Your task to perform on an android device: Open privacy settings Image 0: 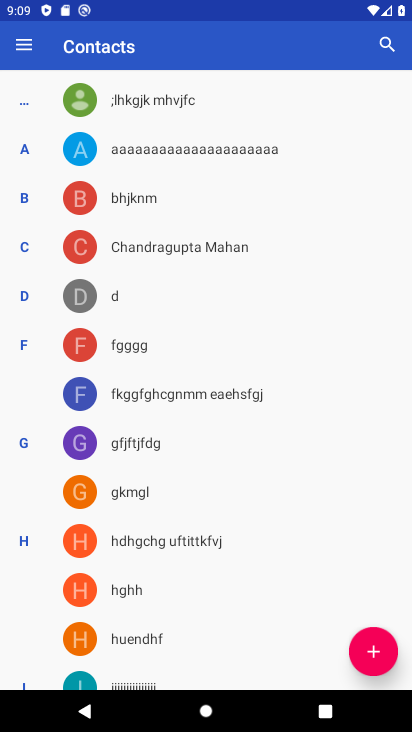
Step 0: press home button
Your task to perform on an android device: Open privacy settings Image 1: 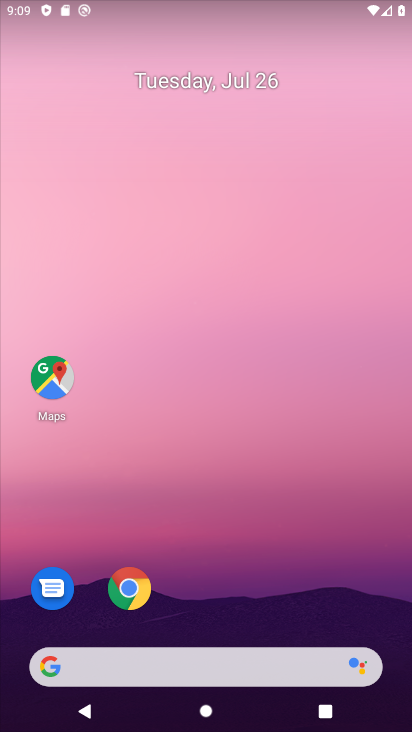
Step 1: drag from (180, 644) to (143, 335)
Your task to perform on an android device: Open privacy settings Image 2: 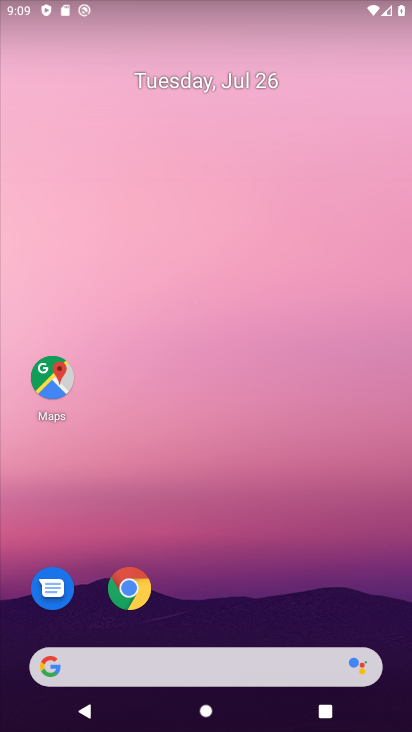
Step 2: drag from (158, 635) to (143, 124)
Your task to perform on an android device: Open privacy settings Image 3: 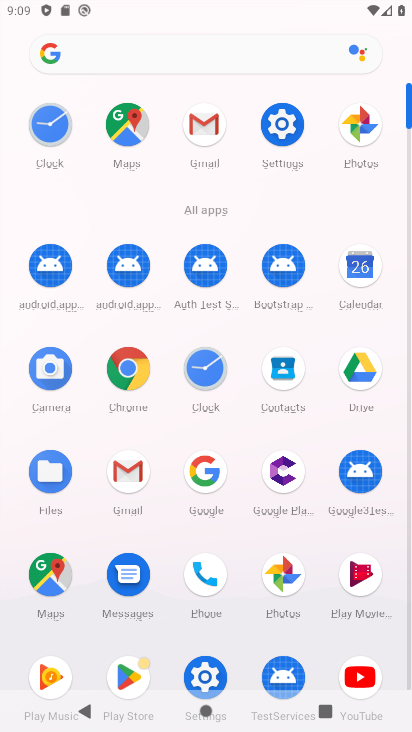
Step 3: click (275, 131)
Your task to perform on an android device: Open privacy settings Image 4: 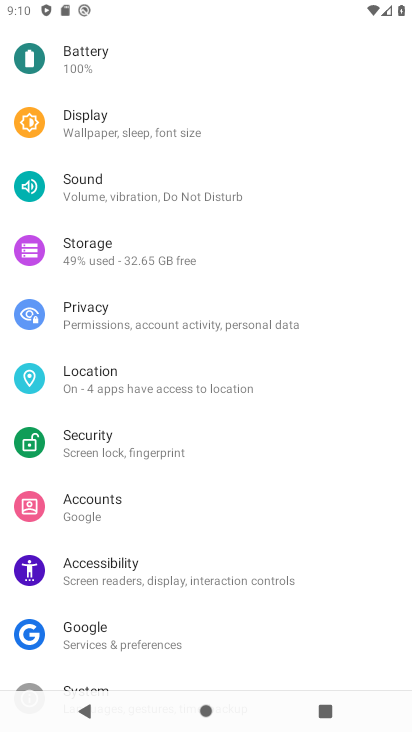
Step 4: click (107, 312)
Your task to perform on an android device: Open privacy settings Image 5: 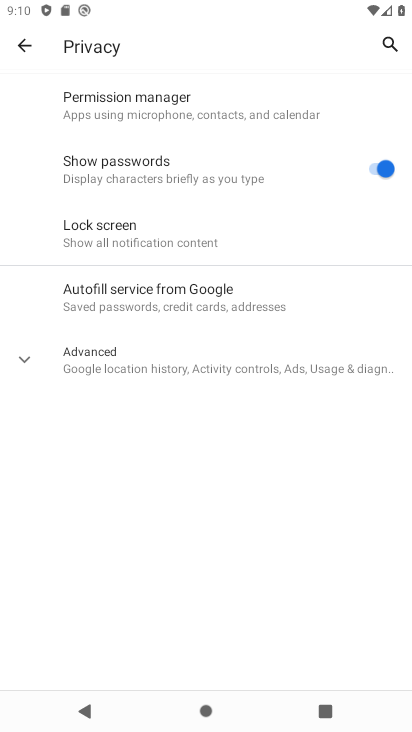
Step 5: click (103, 346)
Your task to perform on an android device: Open privacy settings Image 6: 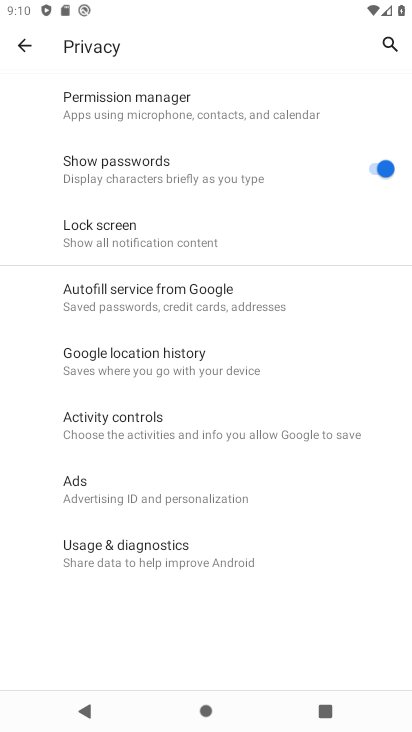
Step 6: task complete